Your task to perform on an android device: Open settings on Google Maps Image 0: 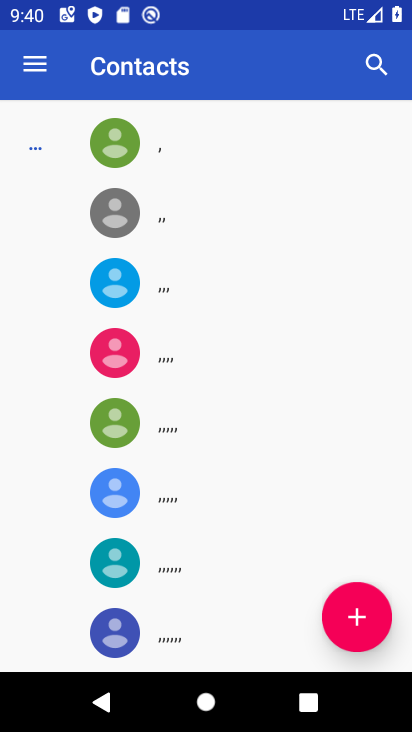
Step 0: press home button
Your task to perform on an android device: Open settings on Google Maps Image 1: 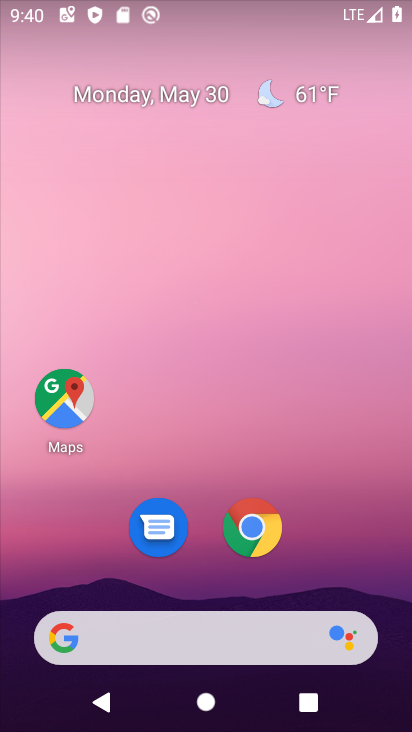
Step 1: click (53, 408)
Your task to perform on an android device: Open settings on Google Maps Image 2: 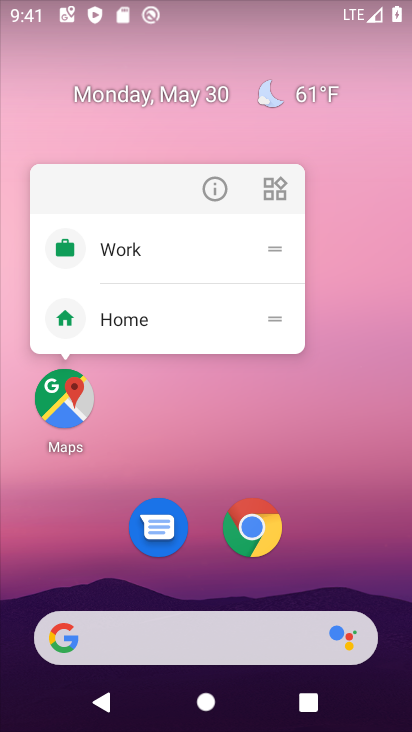
Step 2: click (55, 414)
Your task to perform on an android device: Open settings on Google Maps Image 3: 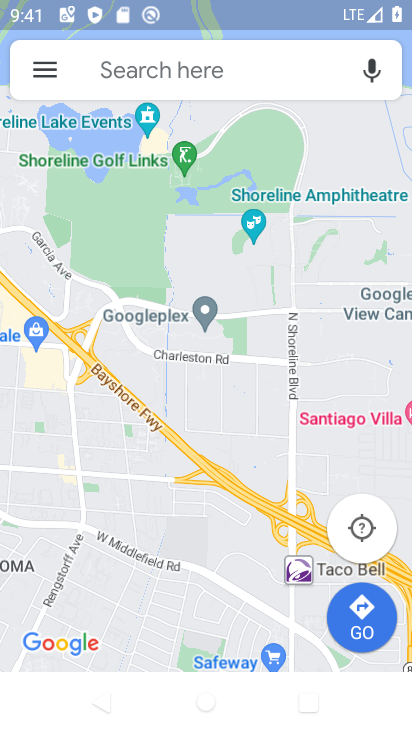
Step 3: click (30, 75)
Your task to perform on an android device: Open settings on Google Maps Image 4: 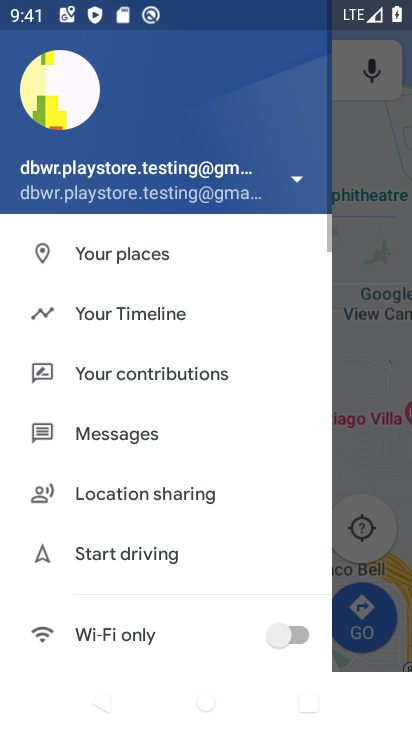
Step 4: drag from (153, 658) to (189, 201)
Your task to perform on an android device: Open settings on Google Maps Image 5: 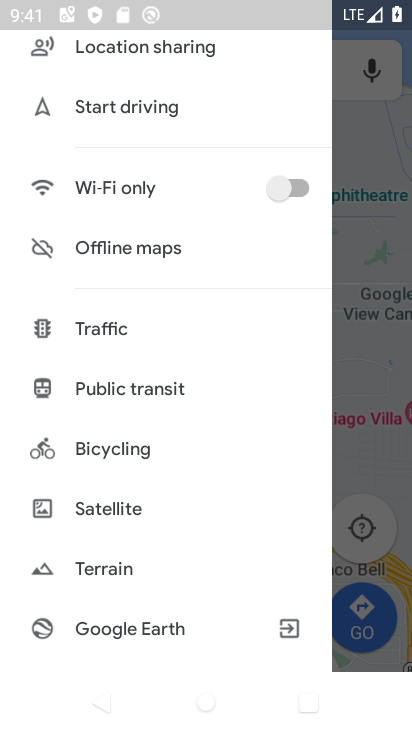
Step 5: drag from (138, 590) to (144, 250)
Your task to perform on an android device: Open settings on Google Maps Image 6: 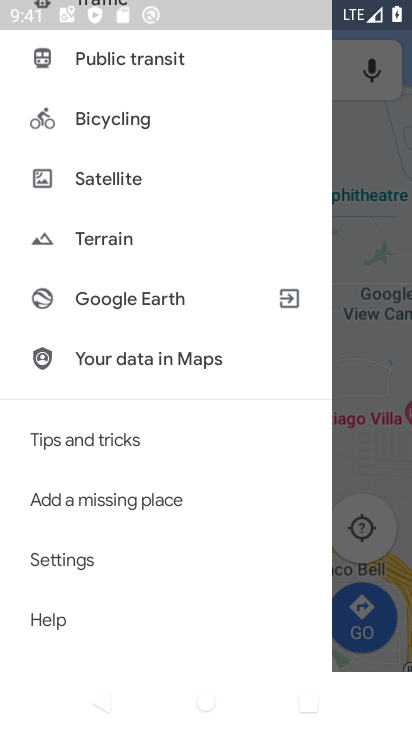
Step 6: click (111, 566)
Your task to perform on an android device: Open settings on Google Maps Image 7: 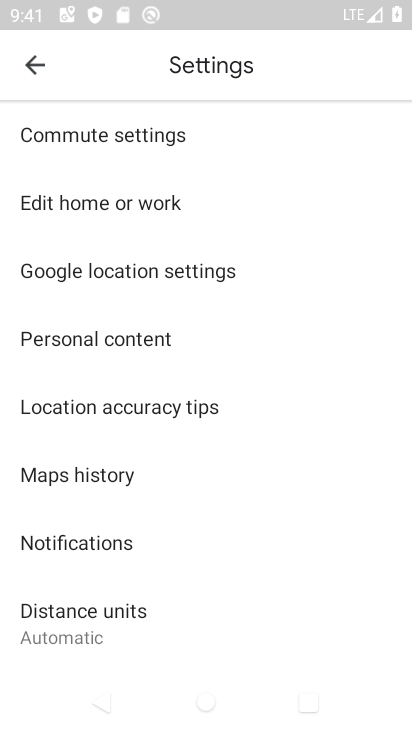
Step 7: task complete